Your task to perform on an android device: Go to network settings Image 0: 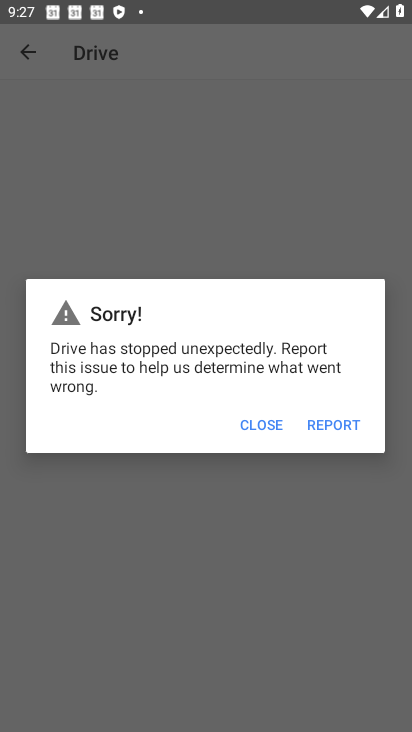
Step 0: press home button
Your task to perform on an android device: Go to network settings Image 1: 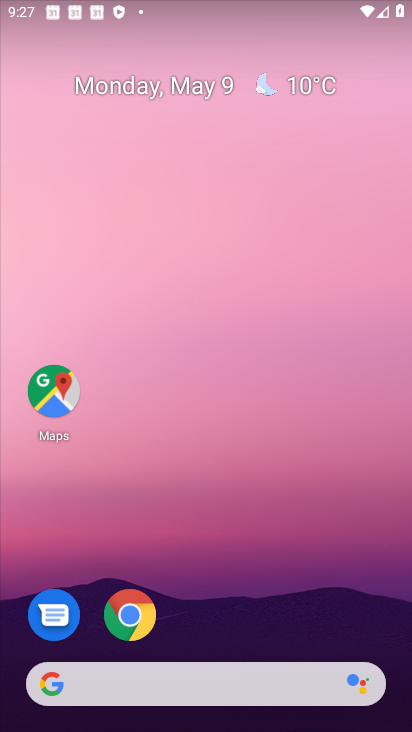
Step 1: drag from (188, 505) to (221, 161)
Your task to perform on an android device: Go to network settings Image 2: 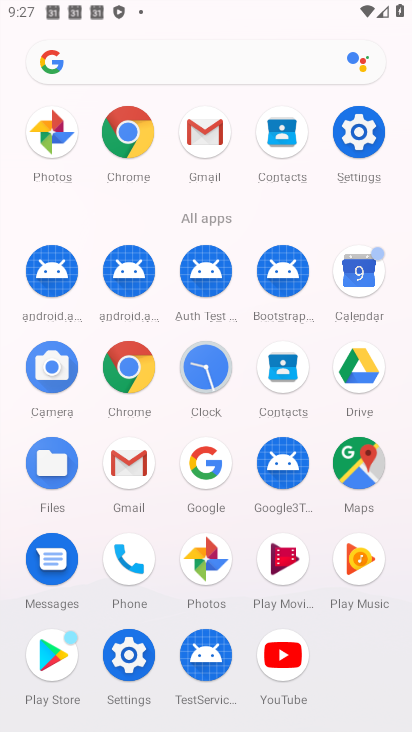
Step 2: click (358, 134)
Your task to perform on an android device: Go to network settings Image 3: 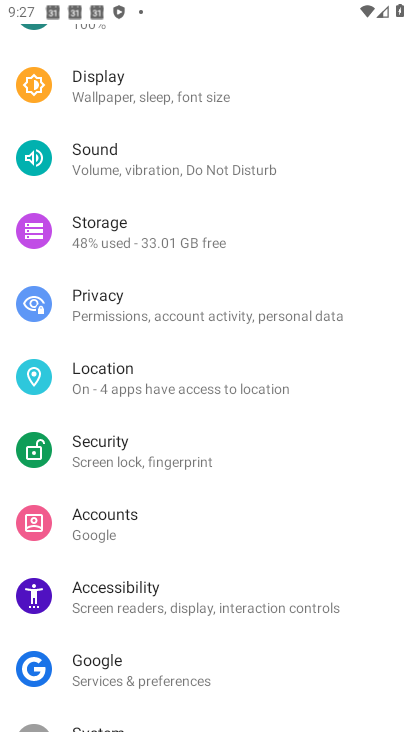
Step 3: drag from (165, 125) to (170, 667)
Your task to perform on an android device: Go to network settings Image 4: 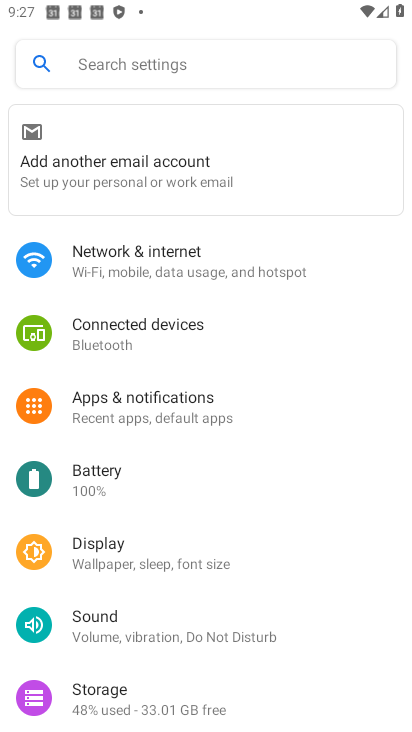
Step 4: click (187, 257)
Your task to perform on an android device: Go to network settings Image 5: 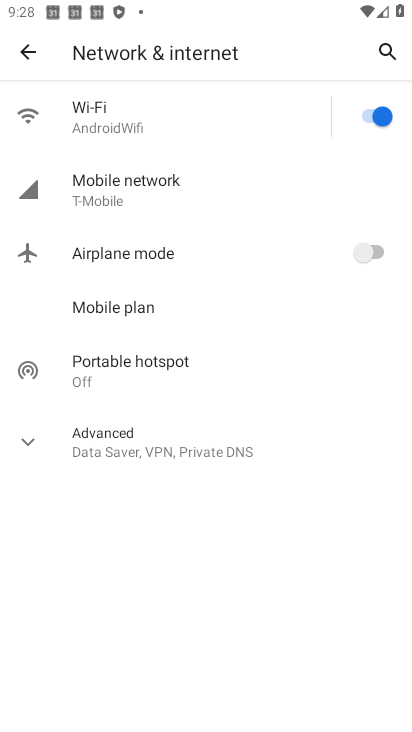
Step 5: click (171, 195)
Your task to perform on an android device: Go to network settings Image 6: 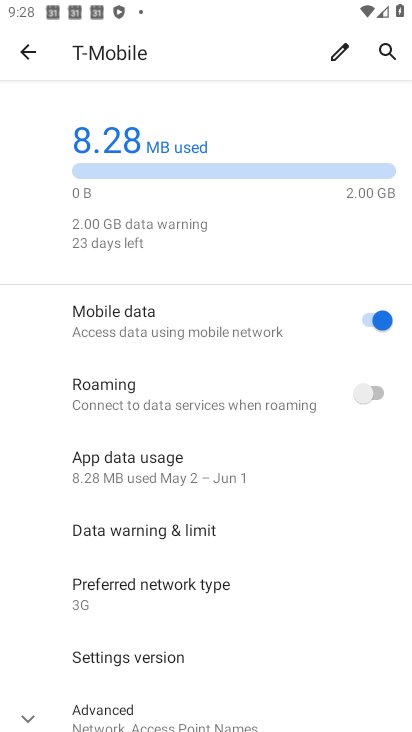
Step 6: task complete